Your task to perform on an android device: Go to accessibility settings Image 0: 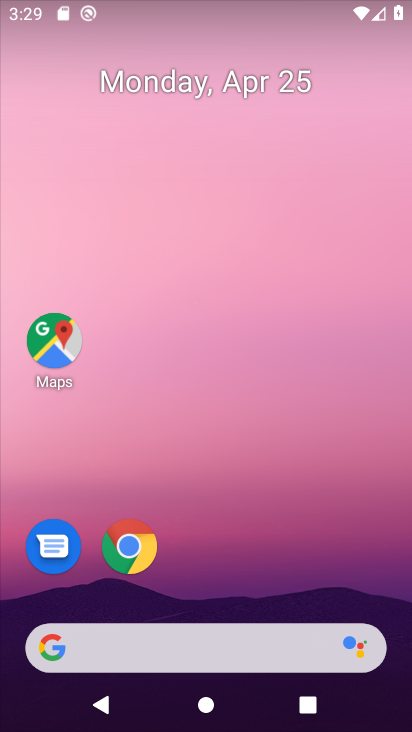
Step 0: drag from (276, 440) to (286, 23)
Your task to perform on an android device: Go to accessibility settings Image 1: 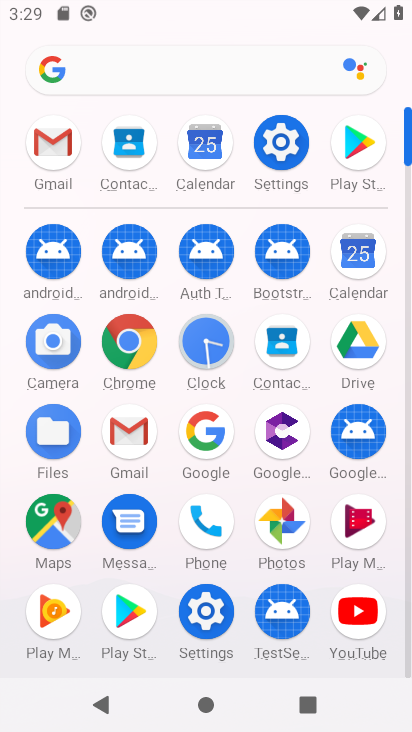
Step 1: click (296, 162)
Your task to perform on an android device: Go to accessibility settings Image 2: 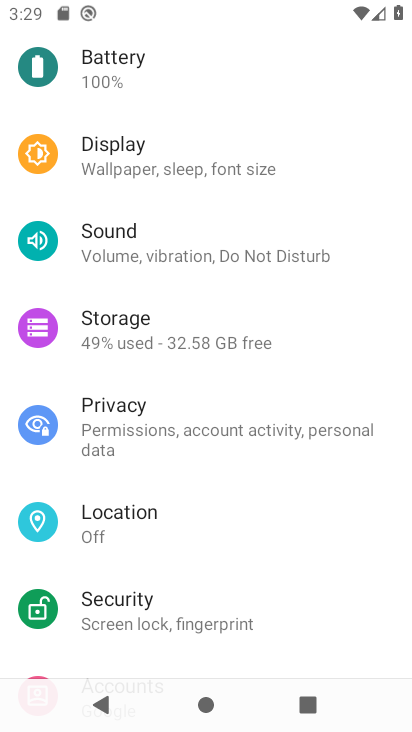
Step 2: drag from (189, 574) to (246, 267)
Your task to perform on an android device: Go to accessibility settings Image 3: 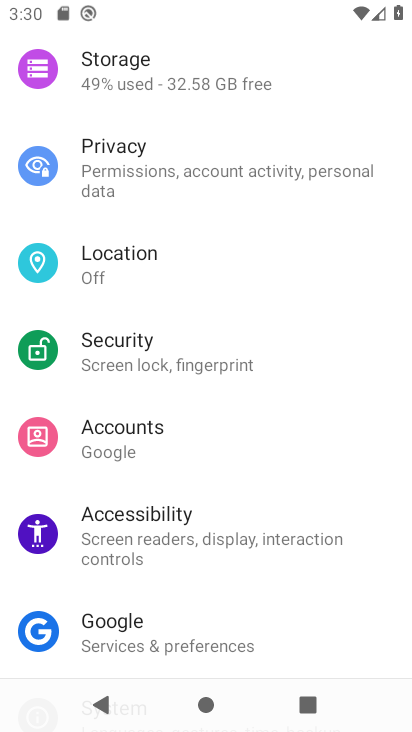
Step 3: drag from (167, 613) to (201, 259)
Your task to perform on an android device: Go to accessibility settings Image 4: 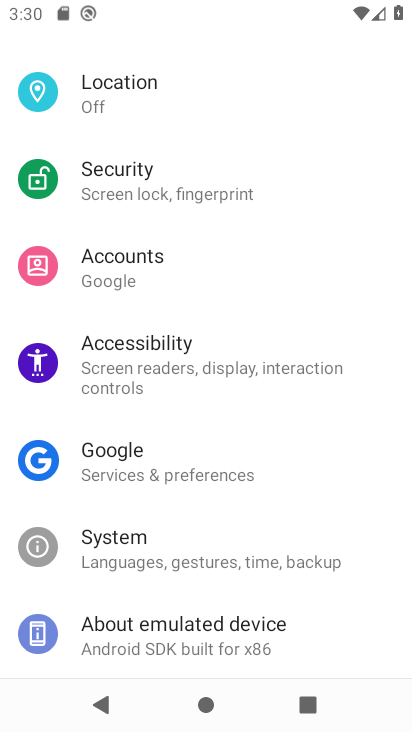
Step 4: click (190, 368)
Your task to perform on an android device: Go to accessibility settings Image 5: 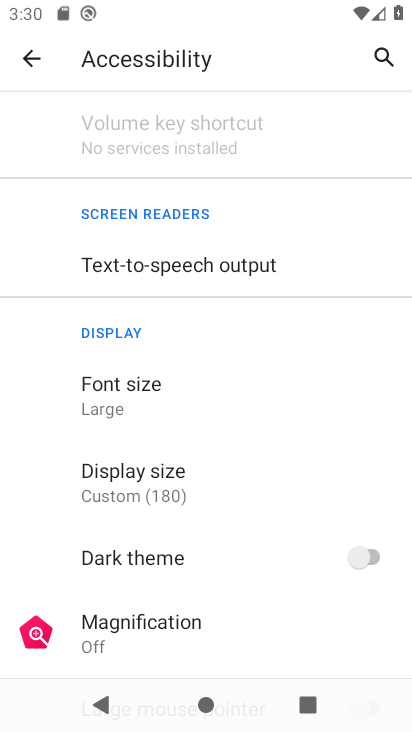
Step 5: task complete